Your task to perform on an android device: open app "Google Pay: Save, Pay, Manage" Image 0: 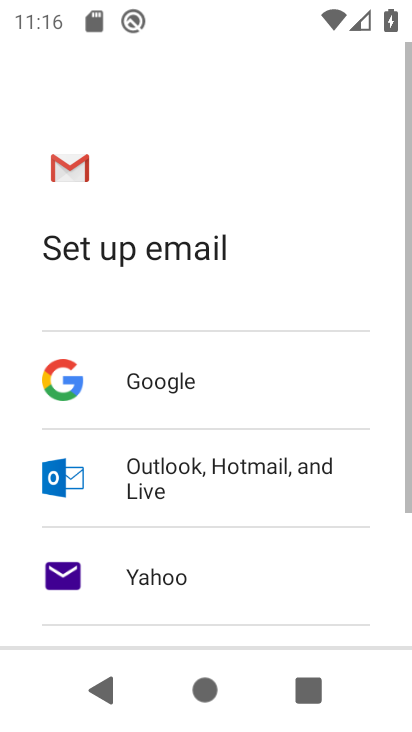
Step 0: press home button
Your task to perform on an android device: open app "Google Pay: Save, Pay, Manage" Image 1: 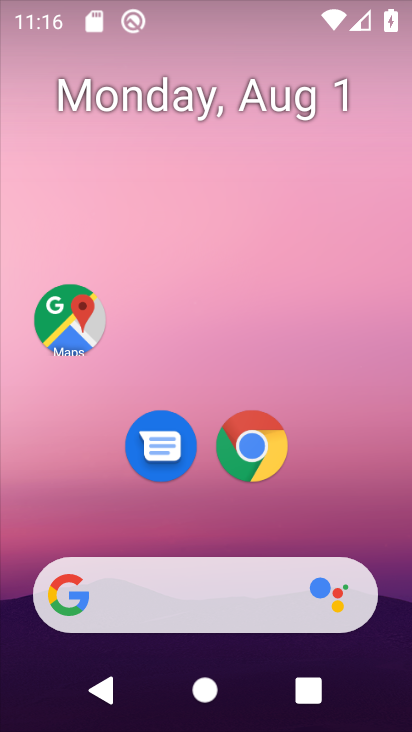
Step 1: drag from (193, 524) to (195, 143)
Your task to perform on an android device: open app "Google Pay: Save, Pay, Manage" Image 2: 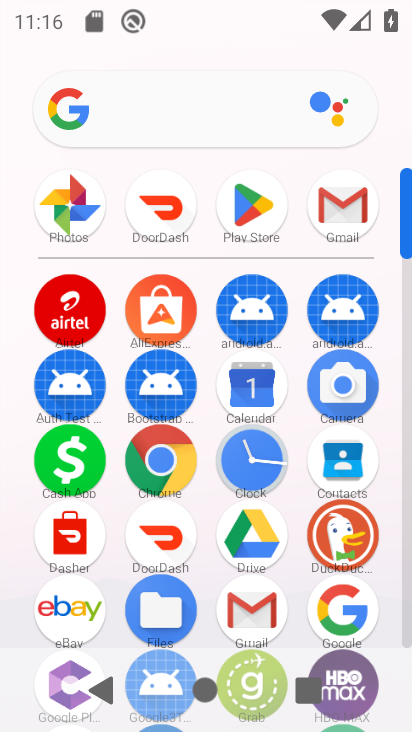
Step 2: click (234, 200)
Your task to perform on an android device: open app "Google Pay: Save, Pay, Manage" Image 3: 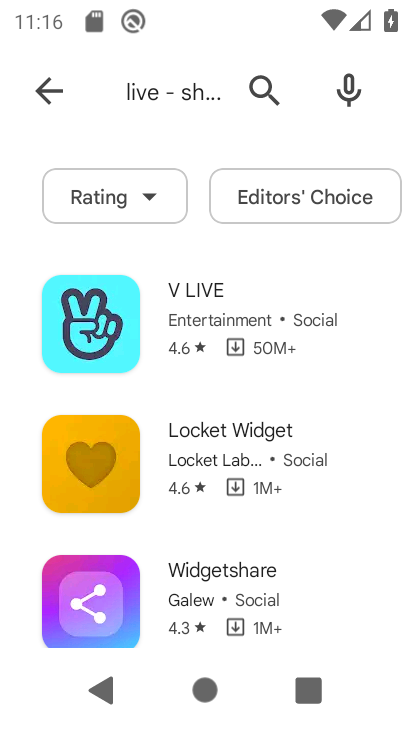
Step 3: click (265, 88)
Your task to perform on an android device: open app "Google Pay: Save, Pay, Manage" Image 4: 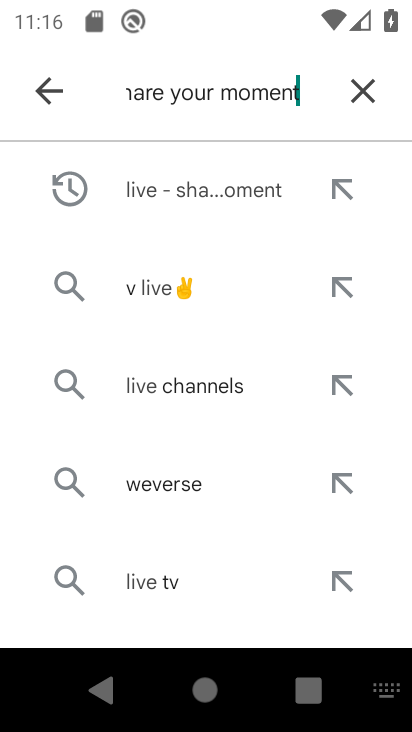
Step 4: click (355, 90)
Your task to perform on an android device: open app "Google Pay: Save, Pay, Manage" Image 5: 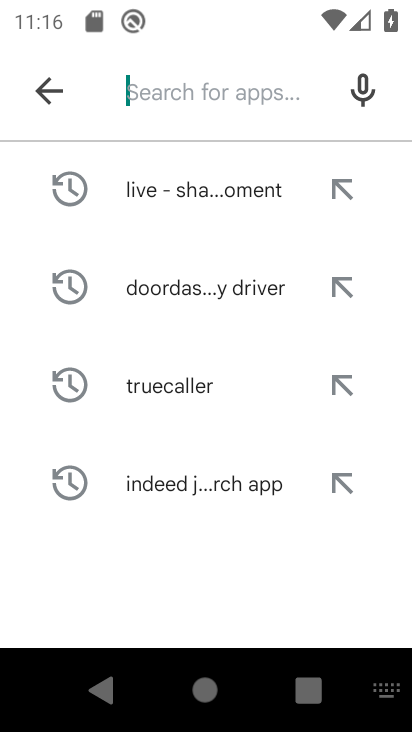
Step 5: type "Google Pay: Save, Pay, Manage"
Your task to perform on an android device: open app "Google Pay: Save, Pay, Manage" Image 6: 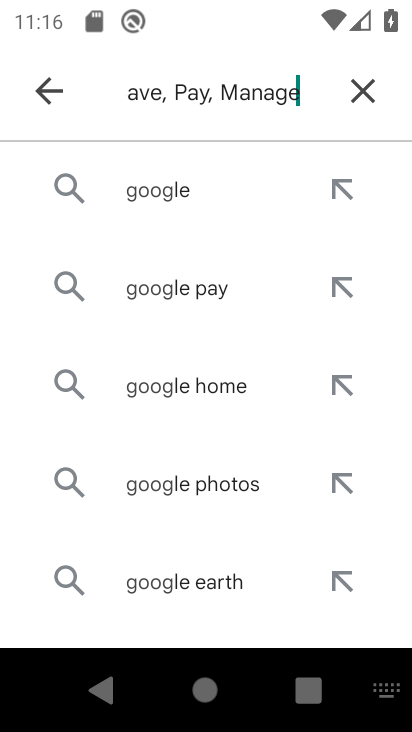
Step 6: type ""
Your task to perform on an android device: open app "Google Pay: Save, Pay, Manage" Image 7: 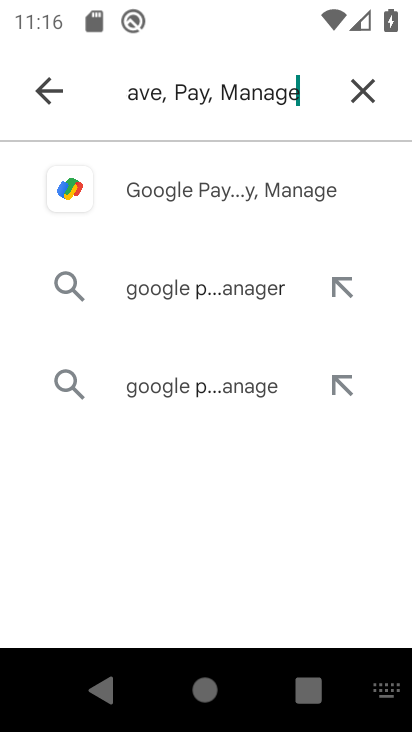
Step 7: click (171, 191)
Your task to perform on an android device: open app "Google Pay: Save, Pay, Manage" Image 8: 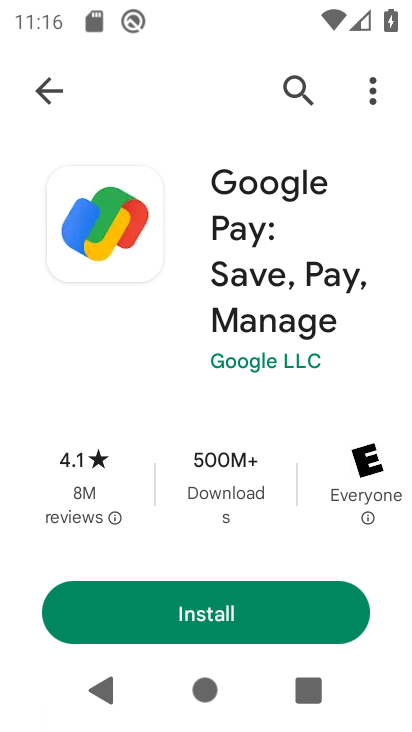
Step 8: task complete